Your task to perform on an android device: turn on location history Image 0: 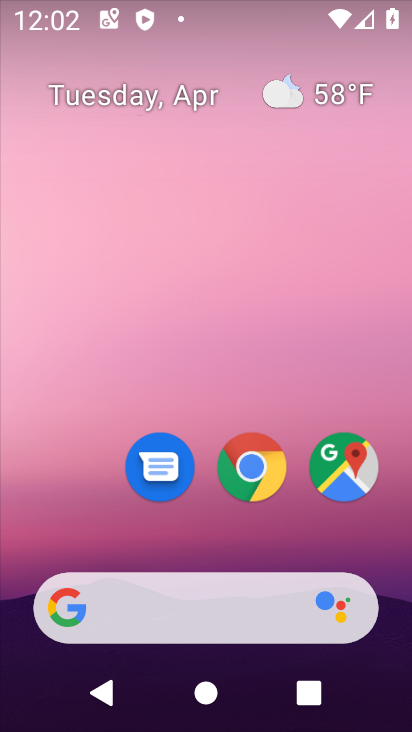
Step 0: drag from (260, 18) to (212, 586)
Your task to perform on an android device: turn on location history Image 1: 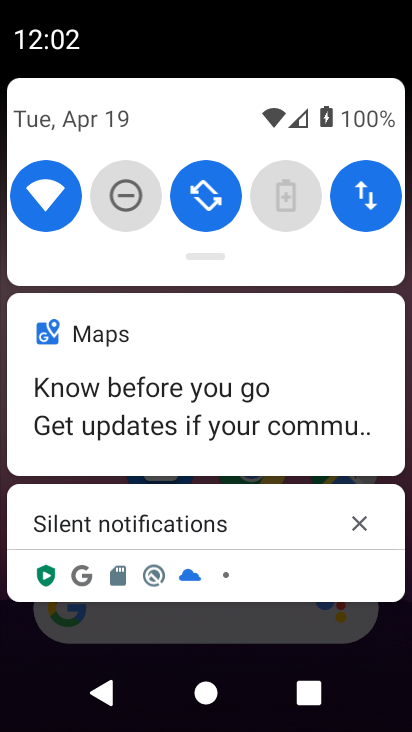
Step 1: drag from (190, 133) to (210, 731)
Your task to perform on an android device: turn on location history Image 2: 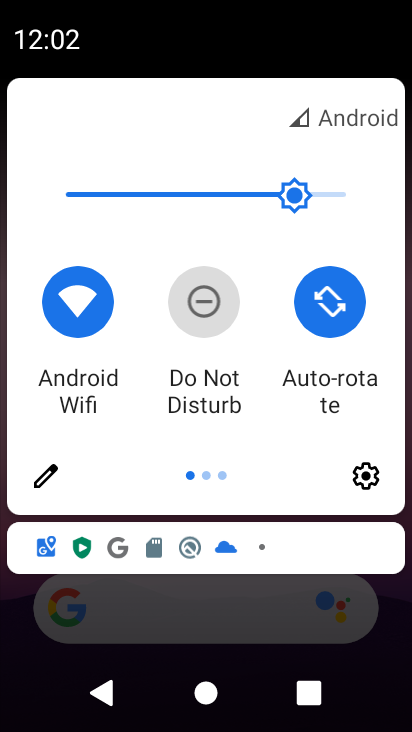
Step 2: click (210, 731)
Your task to perform on an android device: turn on location history Image 3: 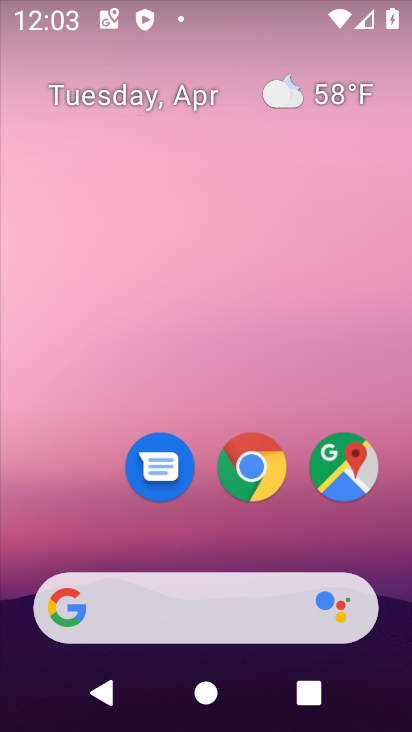
Step 3: drag from (205, 16) to (281, 573)
Your task to perform on an android device: turn on location history Image 4: 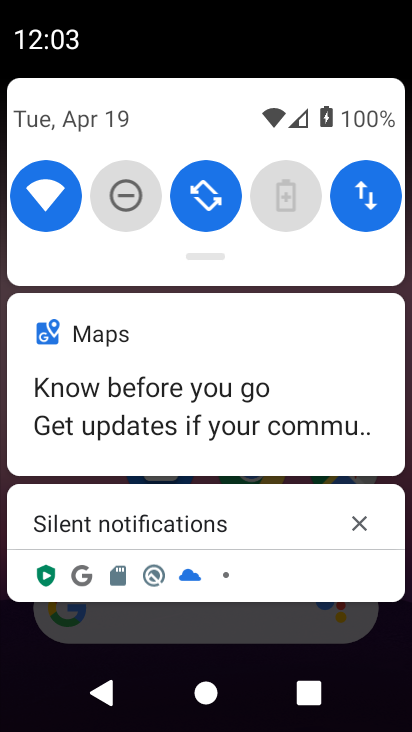
Step 4: drag from (200, 147) to (242, 652)
Your task to perform on an android device: turn on location history Image 5: 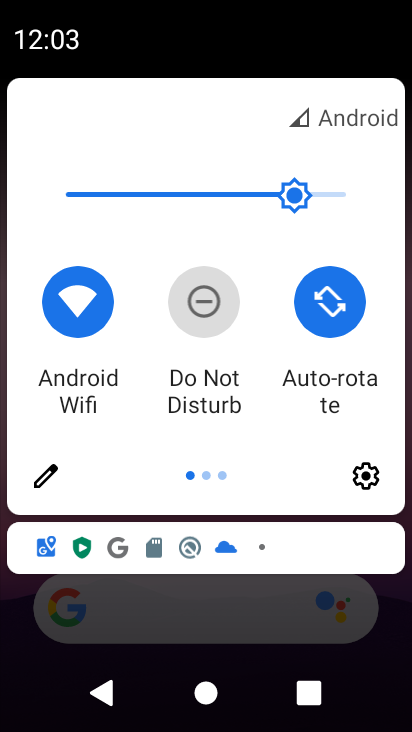
Step 5: click (365, 485)
Your task to perform on an android device: turn on location history Image 6: 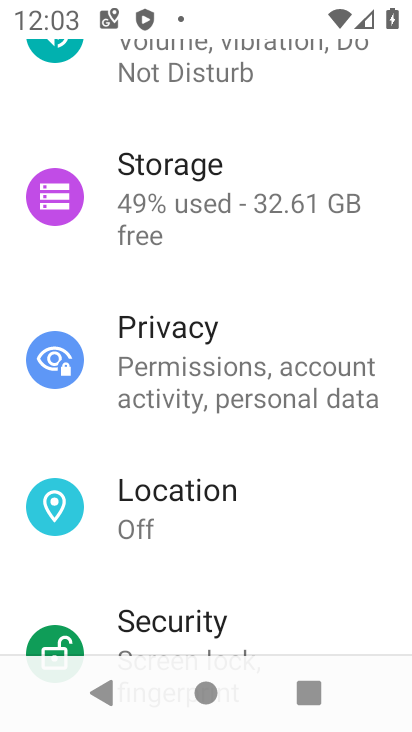
Step 6: click (219, 502)
Your task to perform on an android device: turn on location history Image 7: 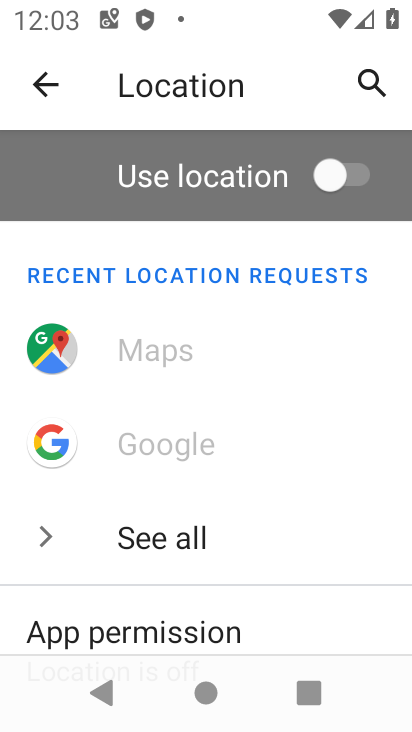
Step 7: click (351, 170)
Your task to perform on an android device: turn on location history Image 8: 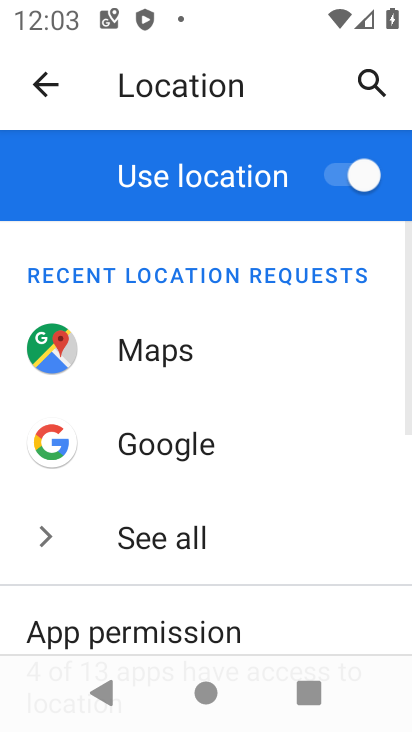
Step 8: task complete